Your task to perform on an android device: turn notification dots off Image 0: 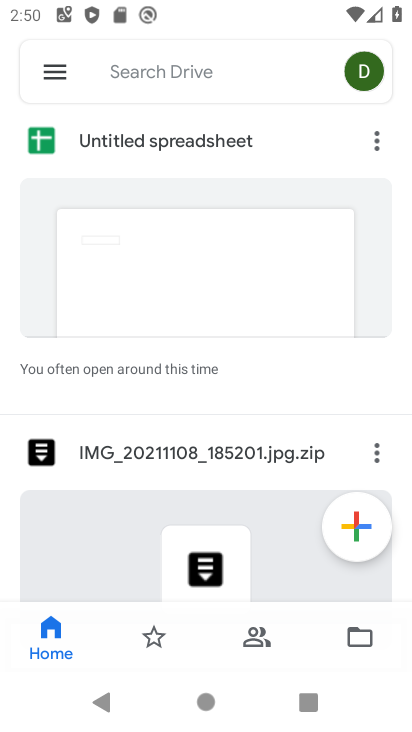
Step 0: press back button
Your task to perform on an android device: turn notification dots off Image 1: 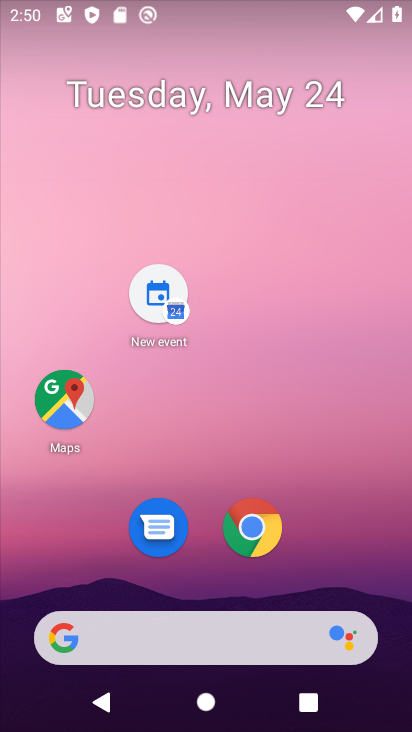
Step 1: drag from (8, 265) to (408, 520)
Your task to perform on an android device: turn notification dots off Image 2: 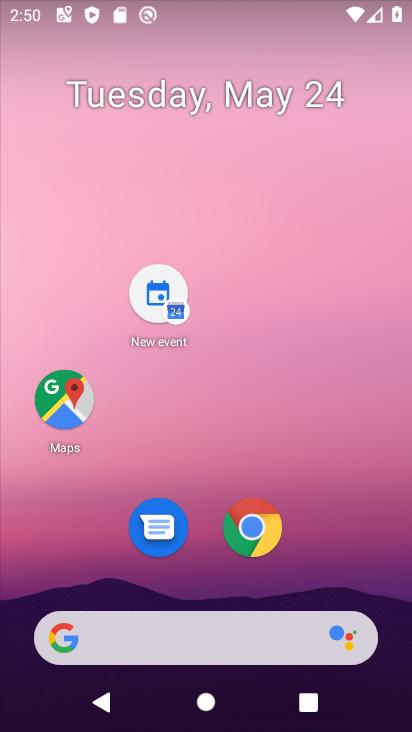
Step 2: press home button
Your task to perform on an android device: turn notification dots off Image 3: 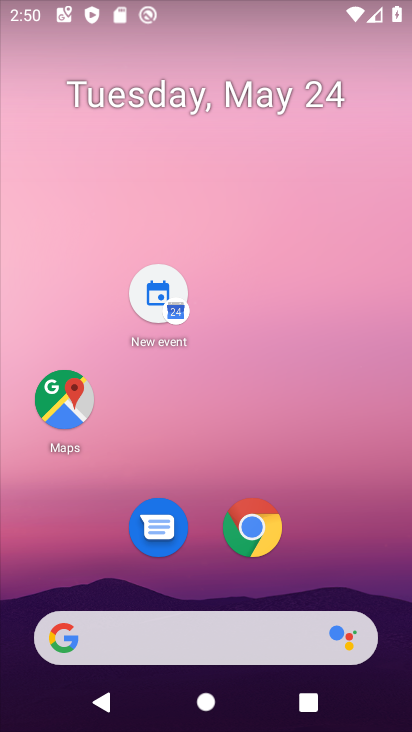
Step 3: drag from (291, 634) to (271, 158)
Your task to perform on an android device: turn notification dots off Image 4: 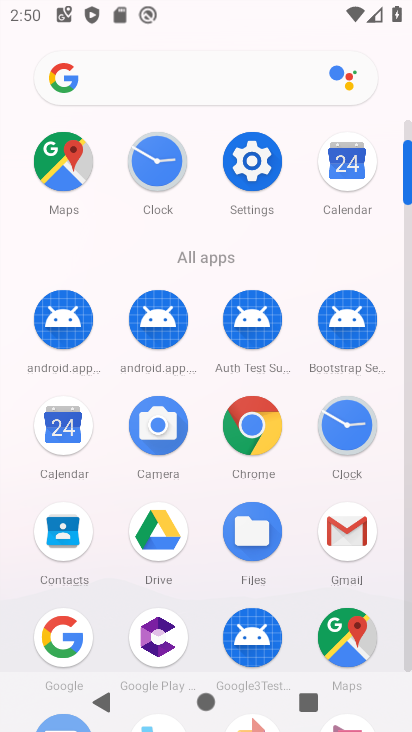
Step 4: click (265, 155)
Your task to perform on an android device: turn notification dots off Image 5: 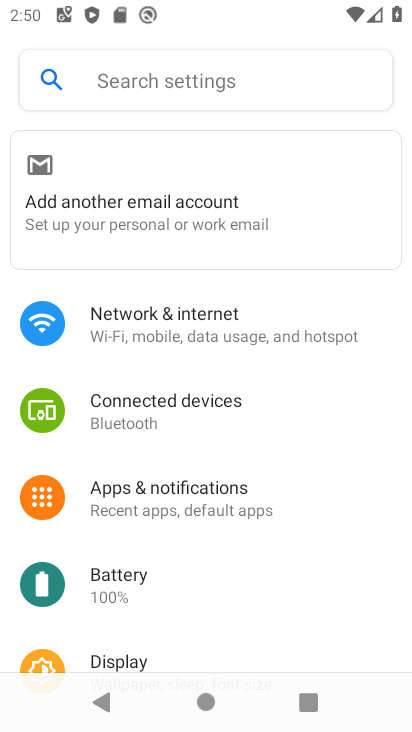
Step 5: click (205, 495)
Your task to perform on an android device: turn notification dots off Image 6: 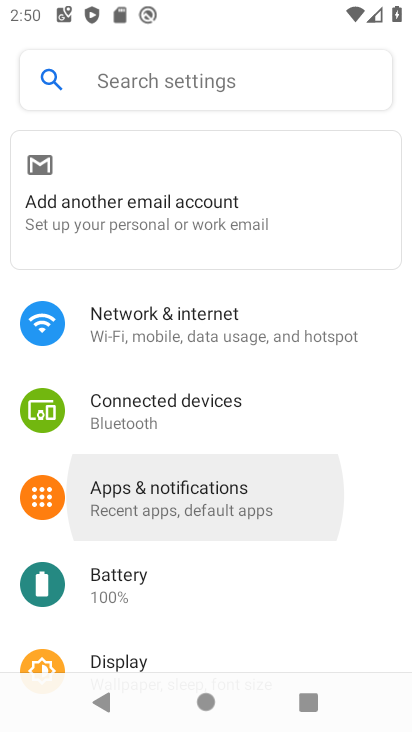
Step 6: click (201, 497)
Your task to perform on an android device: turn notification dots off Image 7: 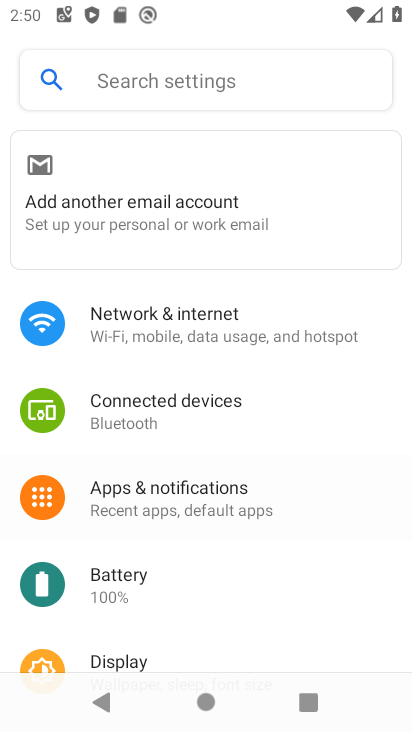
Step 7: click (203, 499)
Your task to perform on an android device: turn notification dots off Image 8: 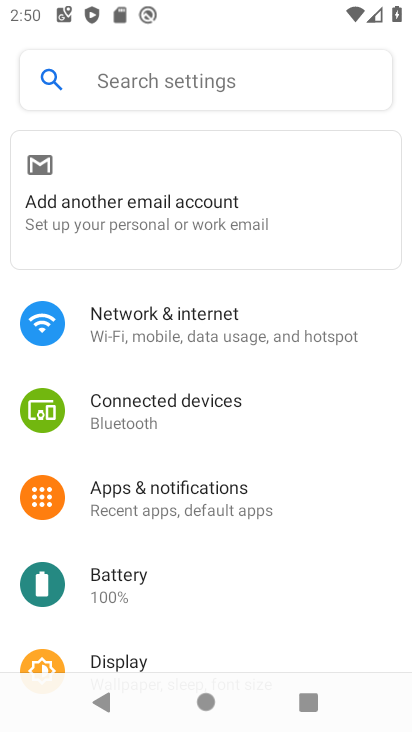
Step 8: click (202, 500)
Your task to perform on an android device: turn notification dots off Image 9: 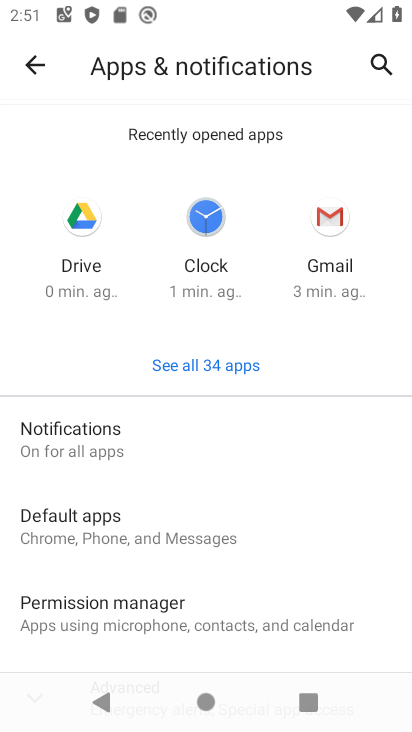
Step 9: click (26, 47)
Your task to perform on an android device: turn notification dots off Image 10: 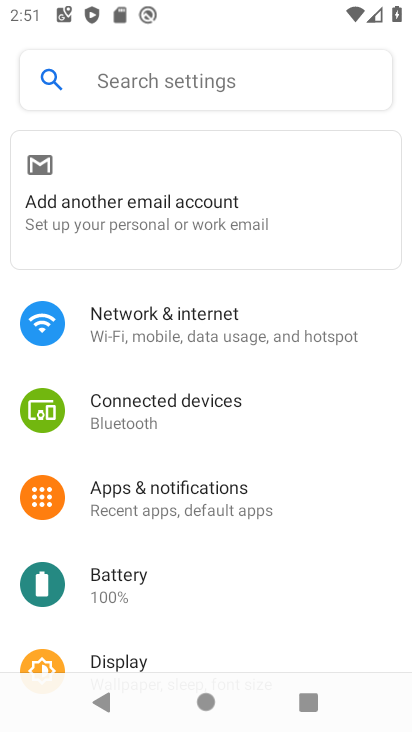
Step 10: click (144, 489)
Your task to perform on an android device: turn notification dots off Image 11: 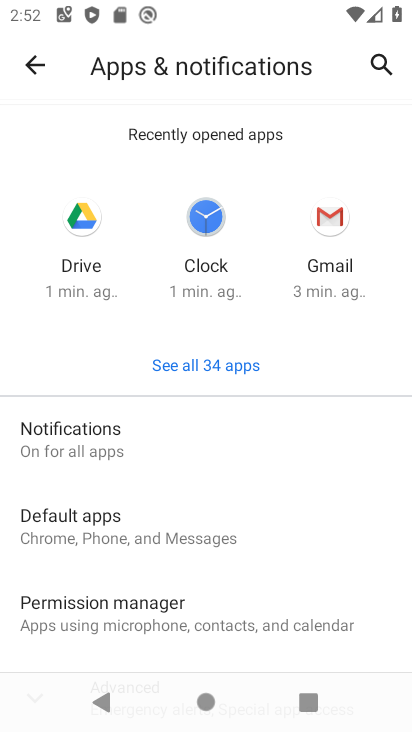
Step 11: click (84, 438)
Your task to perform on an android device: turn notification dots off Image 12: 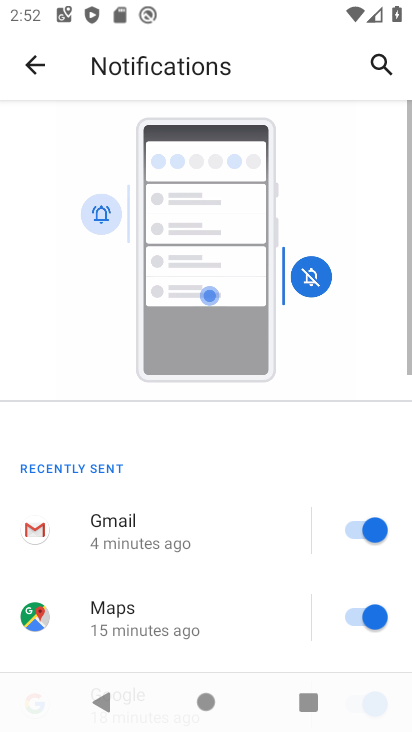
Step 12: drag from (269, 584) to (269, 352)
Your task to perform on an android device: turn notification dots off Image 13: 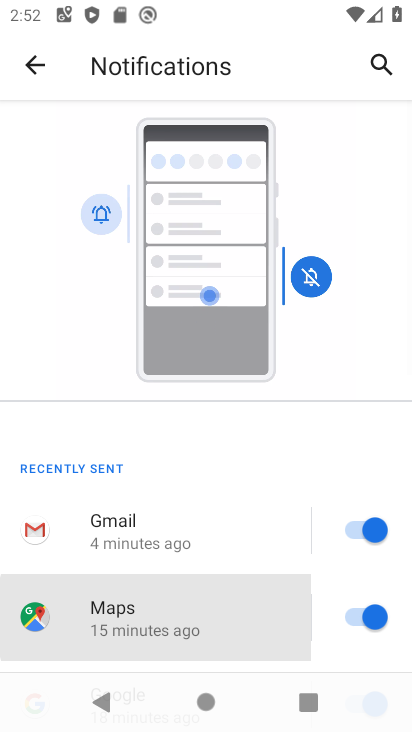
Step 13: drag from (277, 504) to (275, 256)
Your task to perform on an android device: turn notification dots off Image 14: 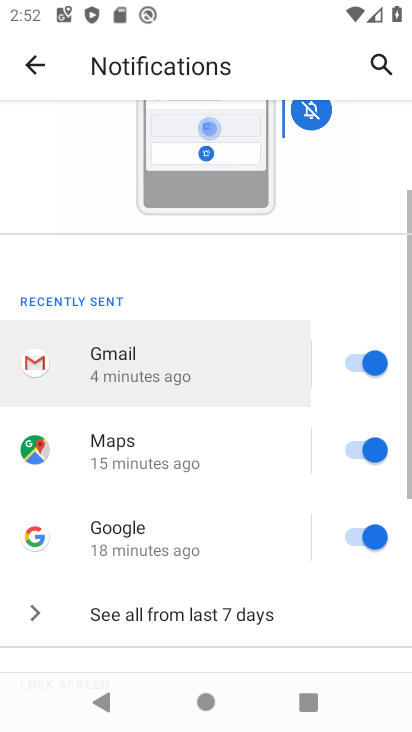
Step 14: drag from (223, 525) to (219, 269)
Your task to perform on an android device: turn notification dots off Image 15: 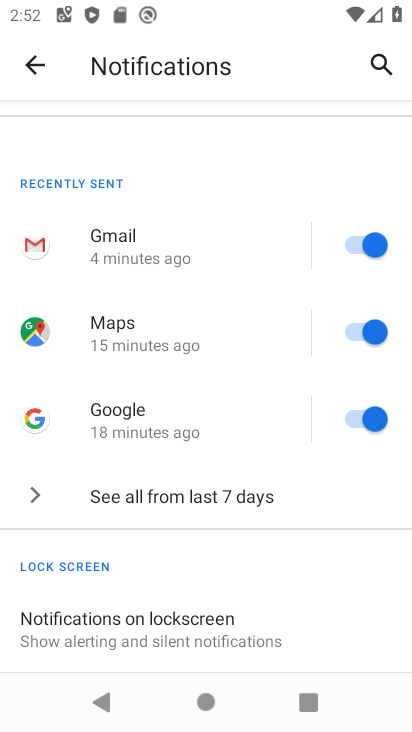
Step 15: drag from (279, 434) to (285, 300)
Your task to perform on an android device: turn notification dots off Image 16: 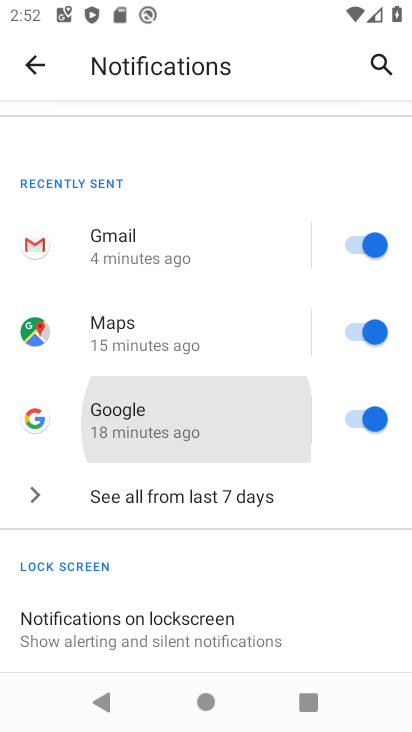
Step 16: click (245, 143)
Your task to perform on an android device: turn notification dots off Image 17: 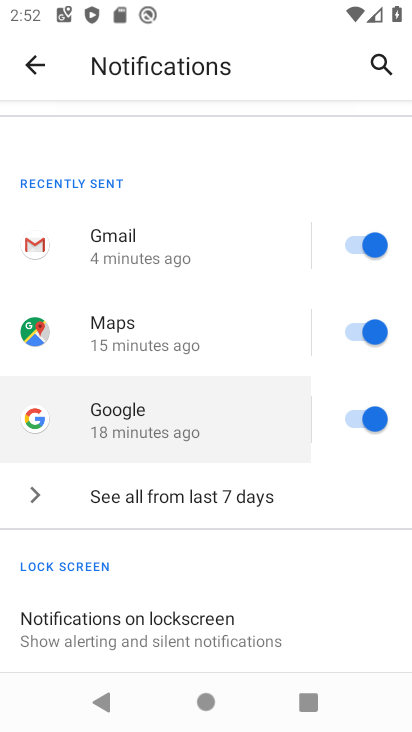
Step 17: click (273, 147)
Your task to perform on an android device: turn notification dots off Image 18: 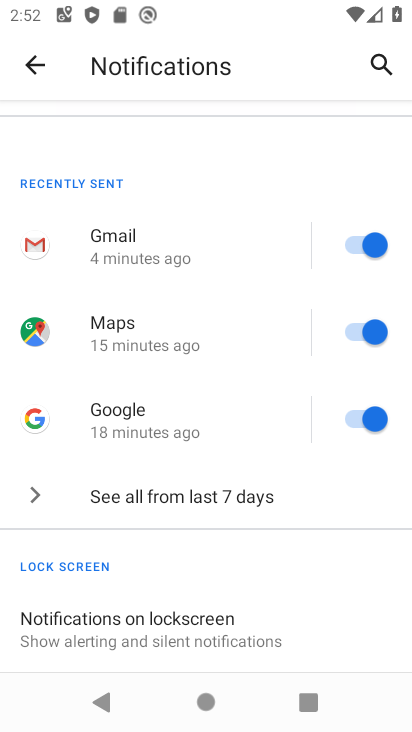
Step 18: drag from (252, 333) to (252, 212)
Your task to perform on an android device: turn notification dots off Image 19: 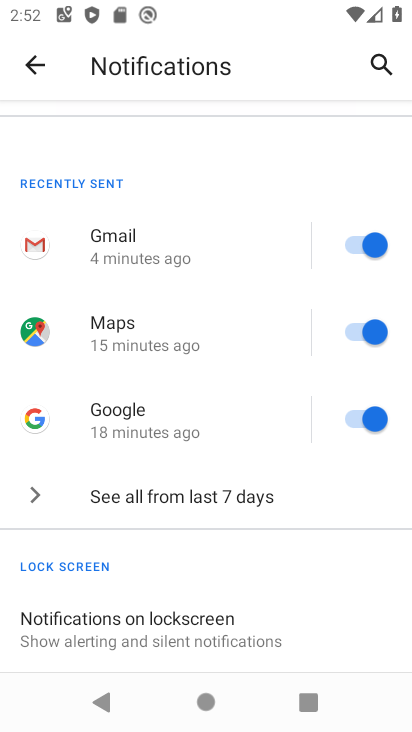
Step 19: drag from (219, 381) to (217, 238)
Your task to perform on an android device: turn notification dots off Image 20: 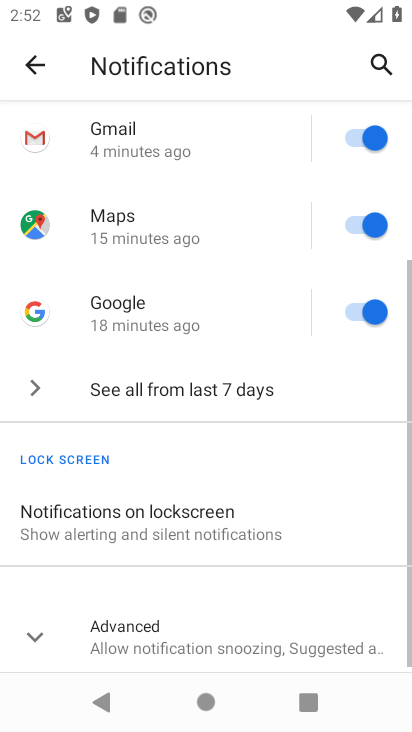
Step 20: click (156, 611)
Your task to perform on an android device: turn notification dots off Image 21: 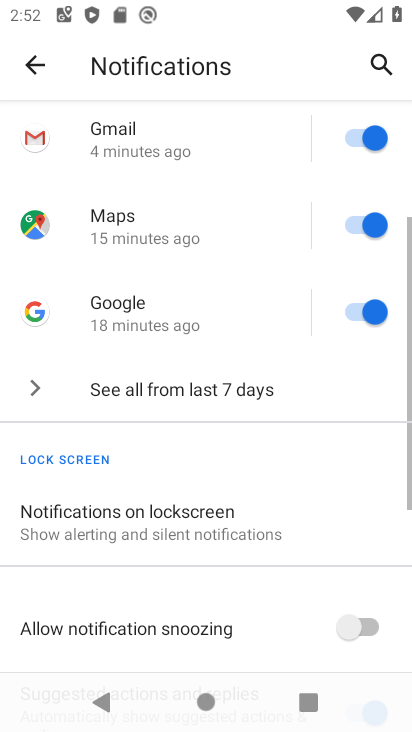
Step 21: drag from (240, 463) to (273, 150)
Your task to perform on an android device: turn notification dots off Image 22: 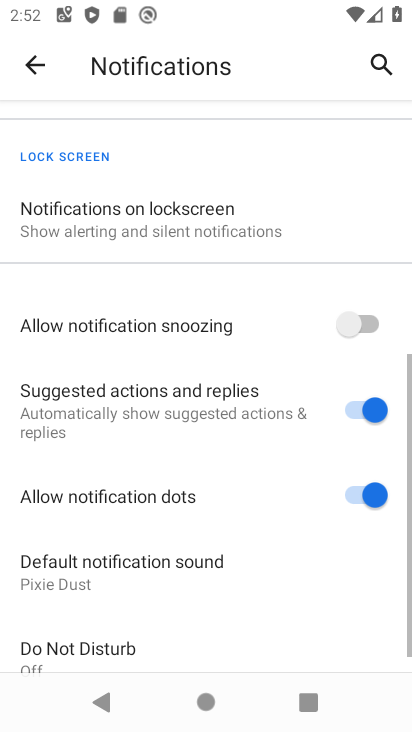
Step 22: drag from (241, 540) to (241, 327)
Your task to perform on an android device: turn notification dots off Image 23: 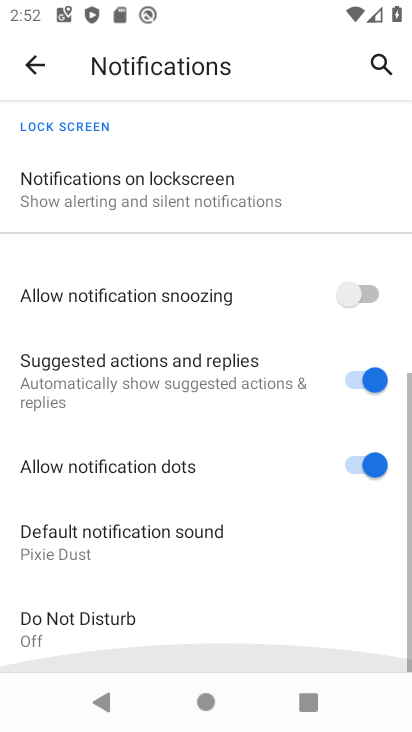
Step 23: drag from (303, 339) to (305, 287)
Your task to perform on an android device: turn notification dots off Image 24: 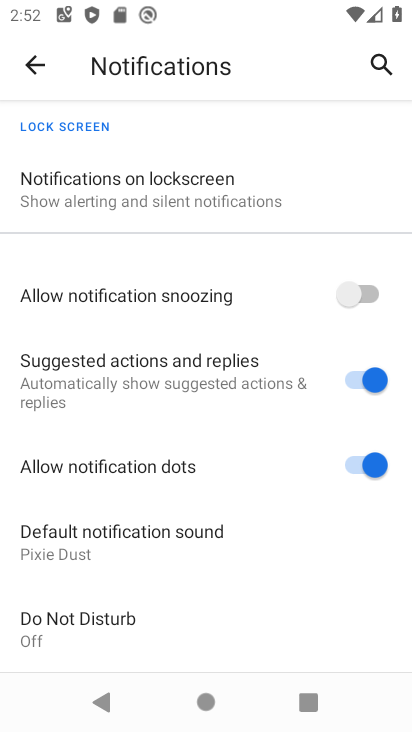
Step 24: click (391, 452)
Your task to perform on an android device: turn notification dots off Image 25: 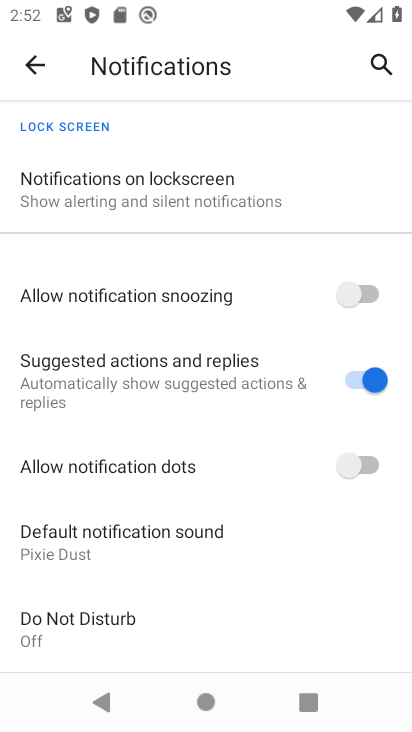
Step 25: task complete